Your task to perform on an android device: What's the weather going to be this weekend? Image 0: 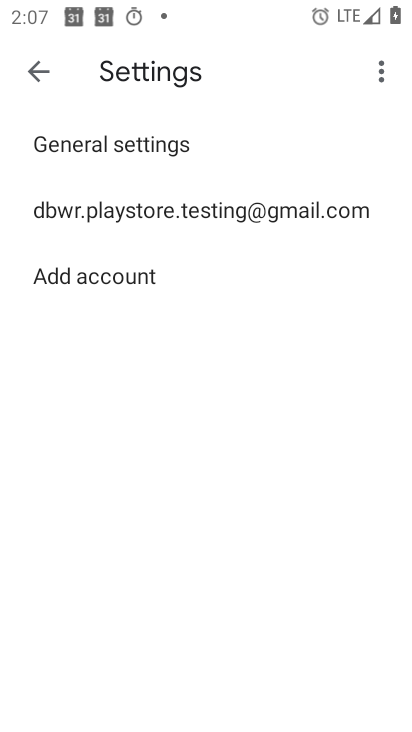
Step 0: press home button
Your task to perform on an android device: What's the weather going to be this weekend? Image 1: 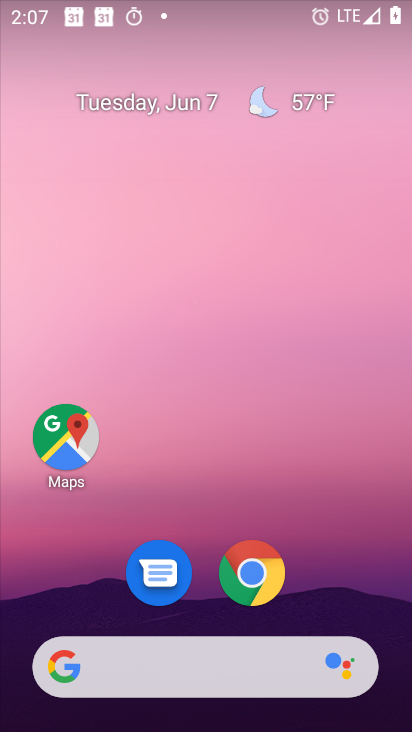
Step 1: drag from (327, 602) to (360, 135)
Your task to perform on an android device: What's the weather going to be this weekend? Image 2: 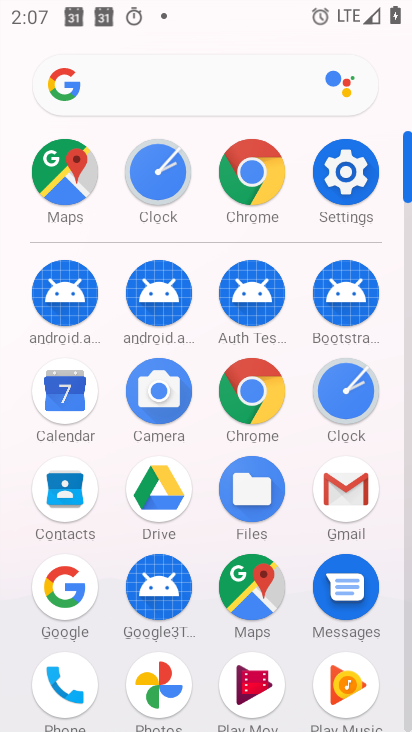
Step 2: click (64, 396)
Your task to perform on an android device: What's the weather going to be this weekend? Image 3: 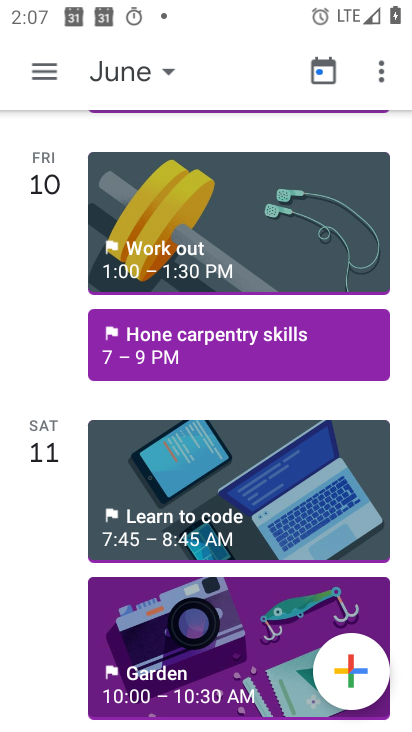
Step 3: press home button
Your task to perform on an android device: What's the weather going to be this weekend? Image 4: 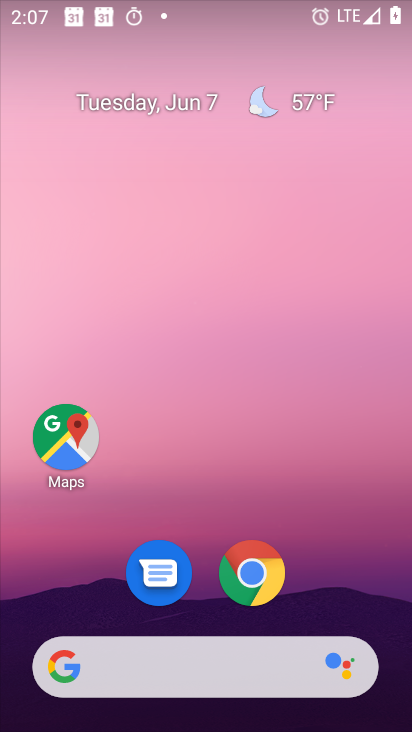
Step 4: click (255, 567)
Your task to perform on an android device: What's the weather going to be this weekend? Image 5: 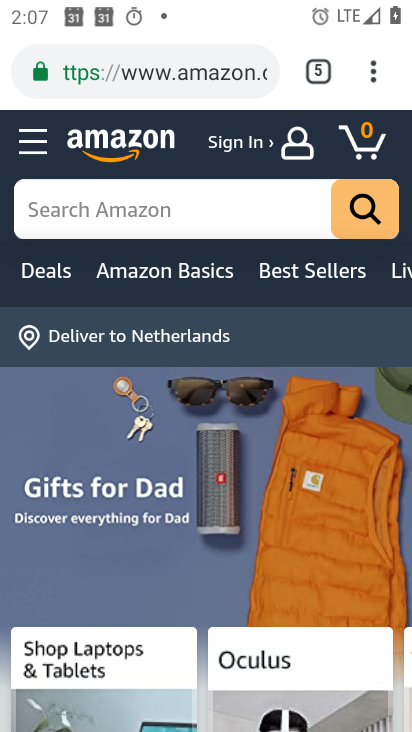
Step 5: click (229, 69)
Your task to perform on an android device: What's the weather going to be this weekend? Image 6: 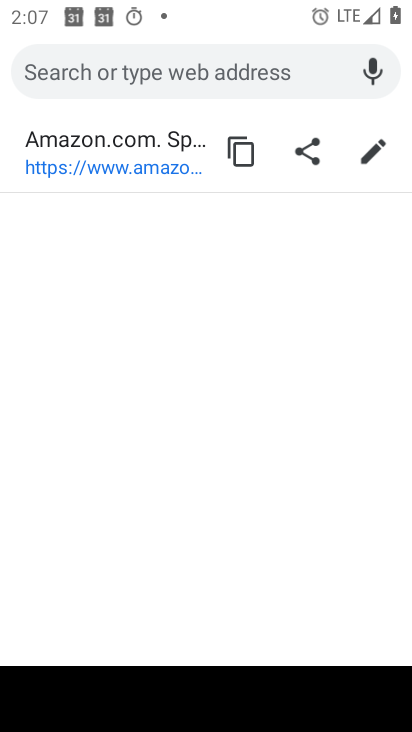
Step 6: type "What's the weather going to be this weekend?"
Your task to perform on an android device: What's the weather going to be this weekend? Image 7: 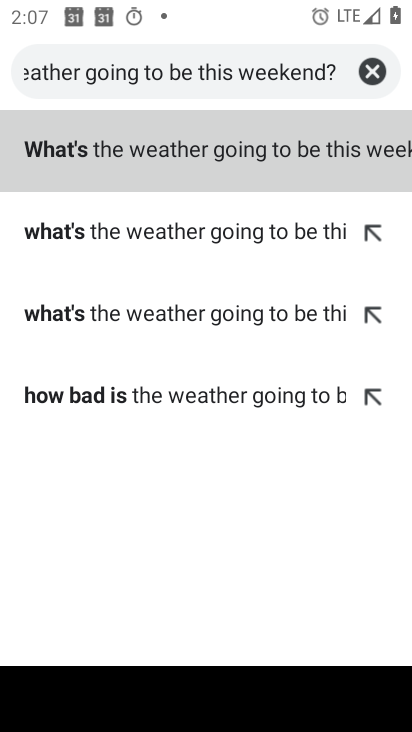
Step 7: click (195, 152)
Your task to perform on an android device: What's the weather going to be this weekend? Image 8: 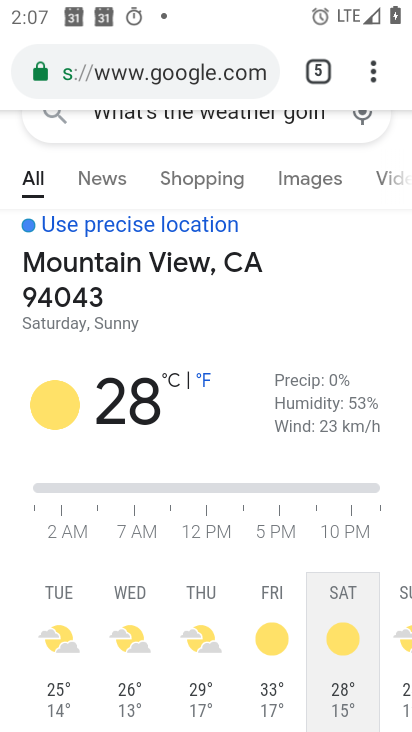
Step 8: task complete